Your task to perform on an android device: turn on the 12-hour format for clock Image 0: 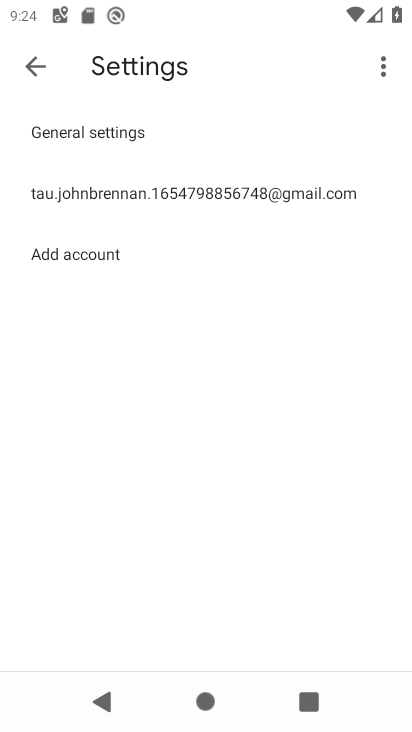
Step 0: press home button
Your task to perform on an android device: turn on the 12-hour format for clock Image 1: 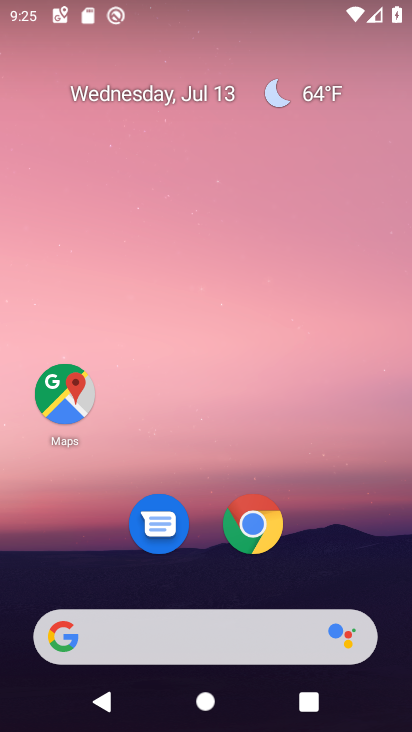
Step 1: drag from (224, 581) to (183, 94)
Your task to perform on an android device: turn on the 12-hour format for clock Image 2: 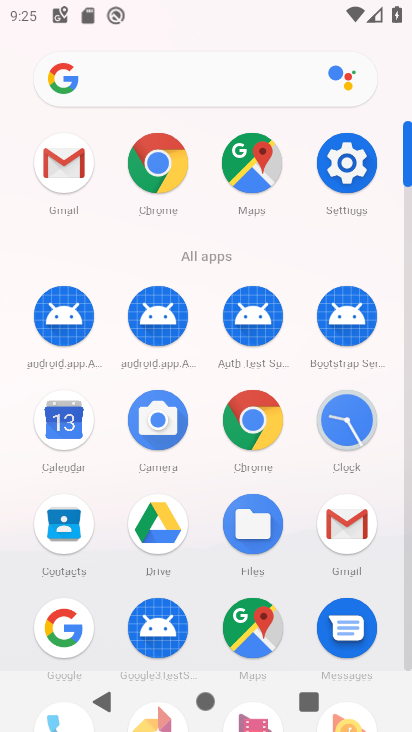
Step 2: click (352, 426)
Your task to perform on an android device: turn on the 12-hour format for clock Image 3: 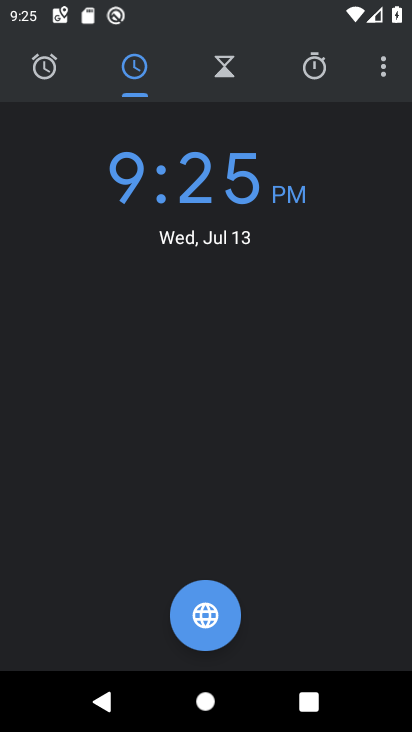
Step 3: drag from (386, 67) to (313, 179)
Your task to perform on an android device: turn on the 12-hour format for clock Image 4: 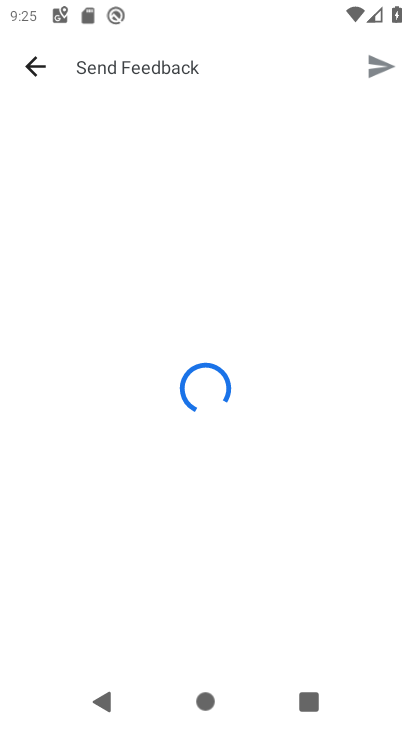
Step 4: click (33, 54)
Your task to perform on an android device: turn on the 12-hour format for clock Image 5: 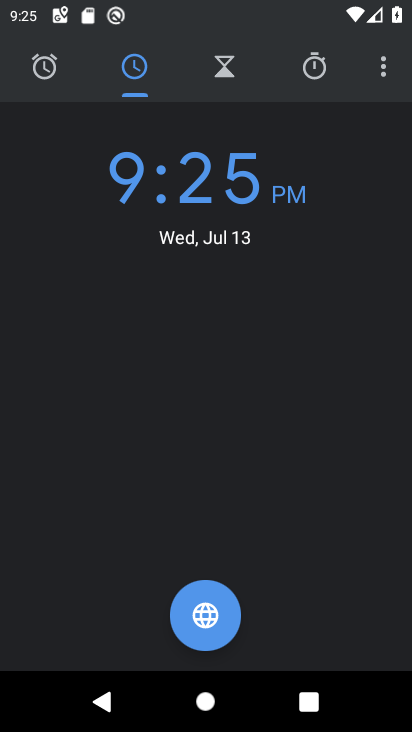
Step 5: click (382, 69)
Your task to perform on an android device: turn on the 12-hour format for clock Image 6: 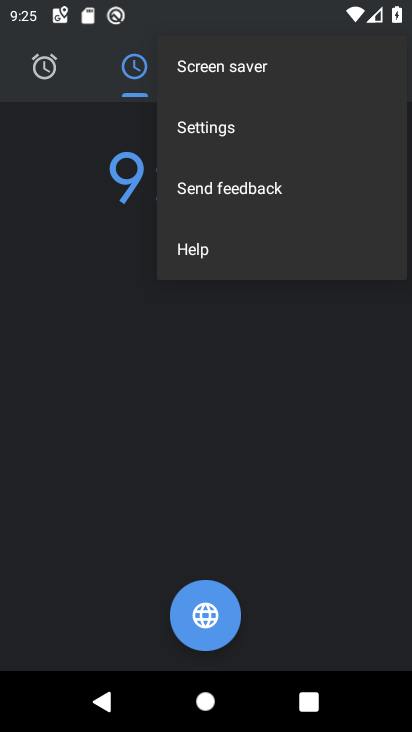
Step 6: click (220, 132)
Your task to perform on an android device: turn on the 12-hour format for clock Image 7: 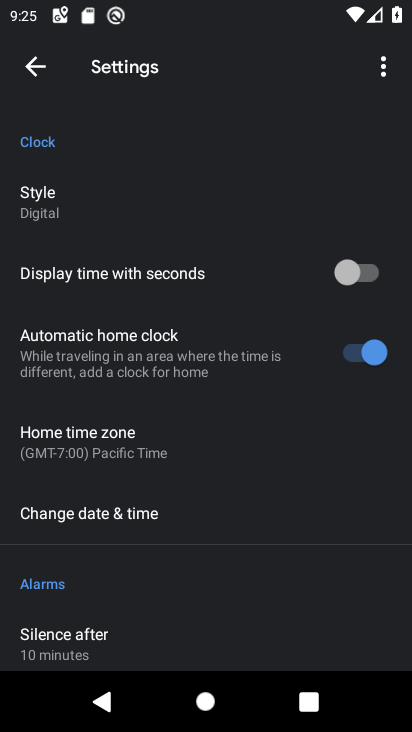
Step 7: drag from (154, 511) to (146, 368)
Your task to perform on an android device: turn on the 12-hour format for clock Image 8: 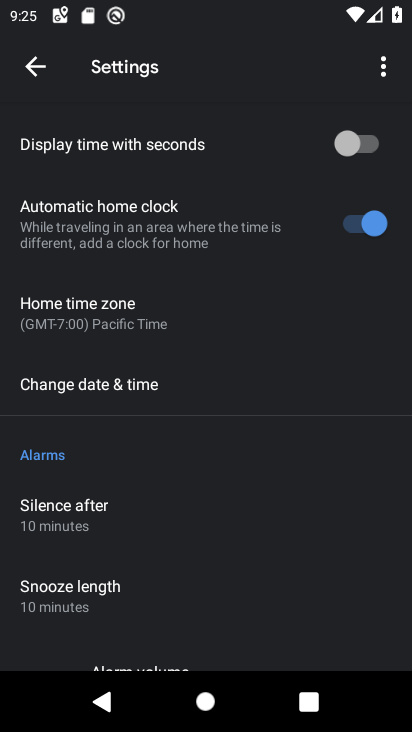
Step 8: click (141, 372)
Your task to perform on an android device: turn on the 12-hour format for clock Image 9: 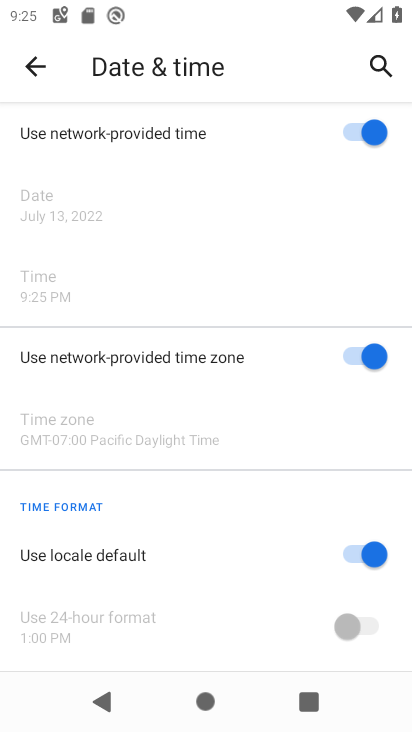
Step 9: task complete